Your task to perform on an android device: delete browsing data in the chrome app Image 0: 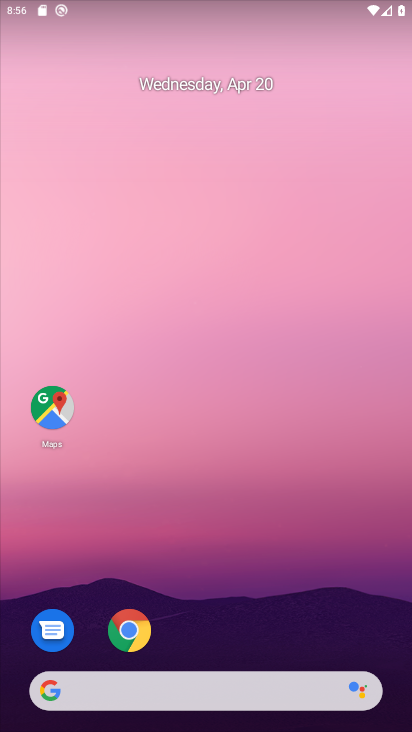
Step 0: drag from (326, 634) to (293, 370)
Your task to perform on an android device: delete browsing data in the chrome app Image 1: 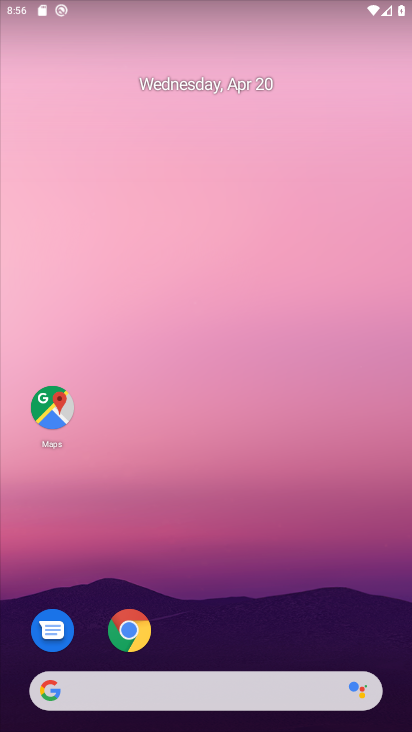
Step 1: drag from (221, 628) to (264, 36)
Your task to perform on an android device: delete browsing data in the chrome app Image 2: 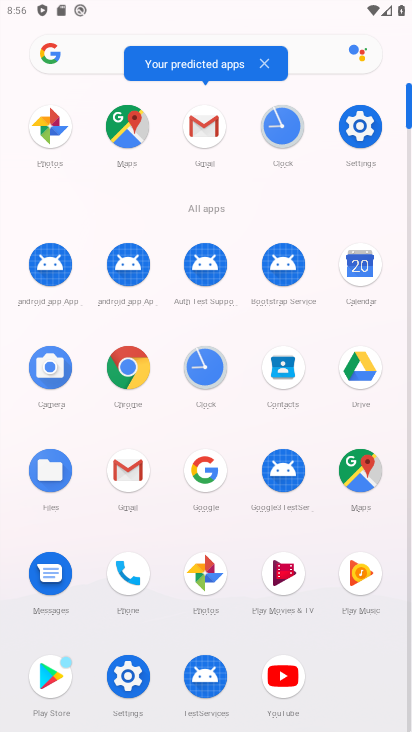
Step 2: click (126, 371)
Your task to perform on an android device: delete browsing data in the chrome app Image 3: 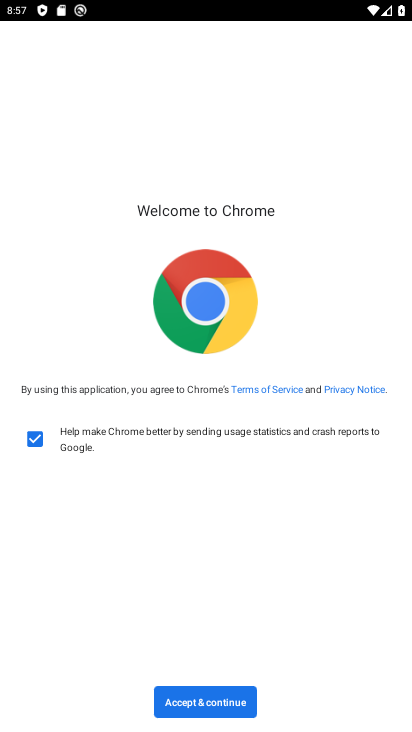
Step 3: click (203, 706)
Your task to perform on an android device: delete browsing data in the chrome app Image 4: 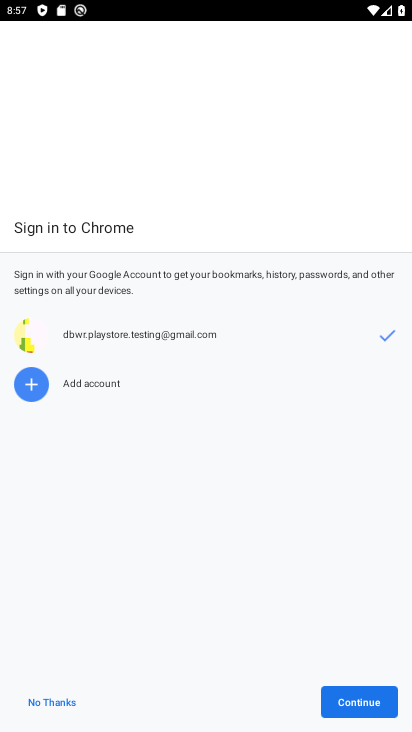
Step 4: click (369, 711)
Your task to perform on an android device: delete browsing data in the chrome app Image 5: 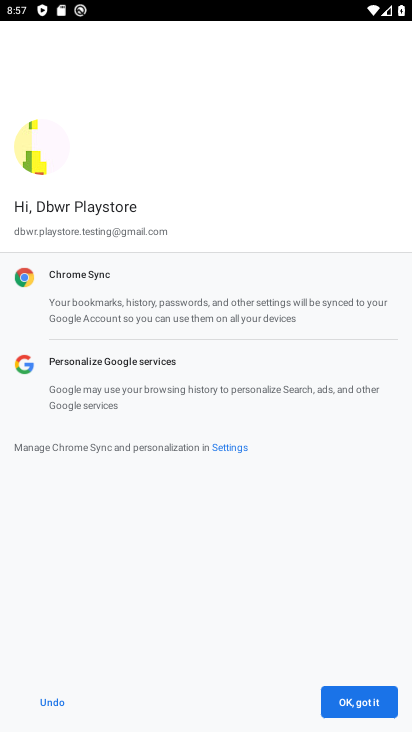
Step 5: click (369, 711)
Your task to perform on an android device: delete browsing data in the chrome app Image 6: 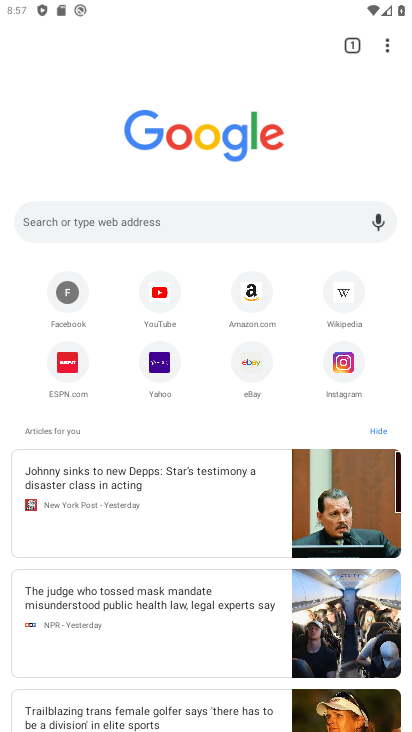
Step 6: click (387, 48)
Your task to perform on an android device: delete browsing data in the chrome app Image 7: 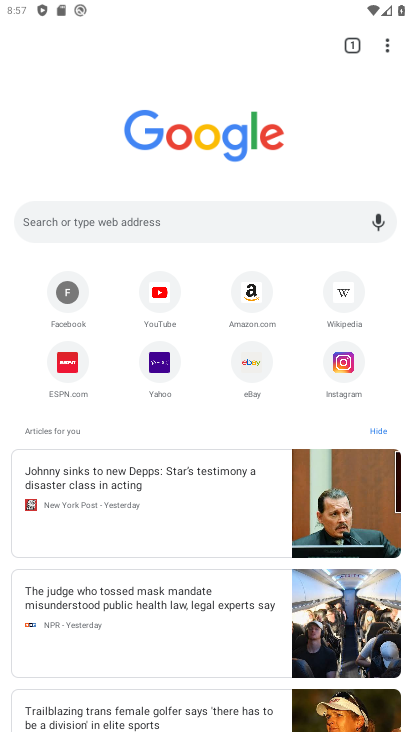
Step 7: drag from (387, 48) to (267, 266)
Your task to perform on an android device: delete browsing data in the chrome app Image 8: 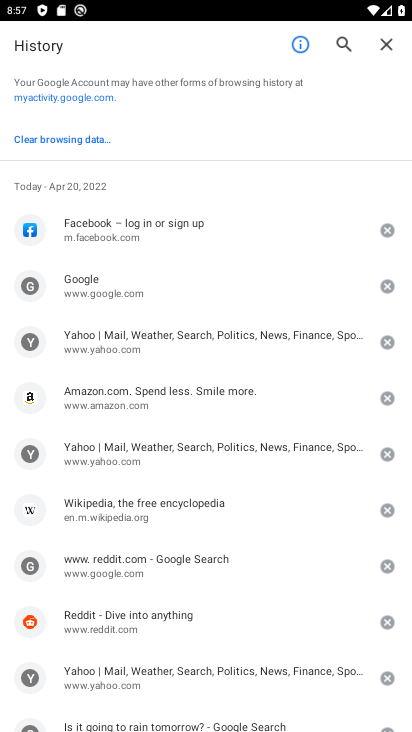
Step 8: click (51, 141)
Your task to perform on an android device: delete browsing data in the chrome app Image 9: 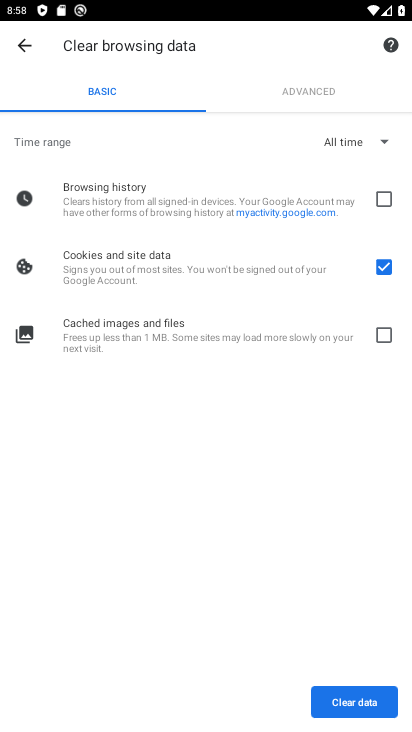
Step 9: click (389, 203)
Your task to perform on an android device: delete browsing data in the chrome app Image 10: 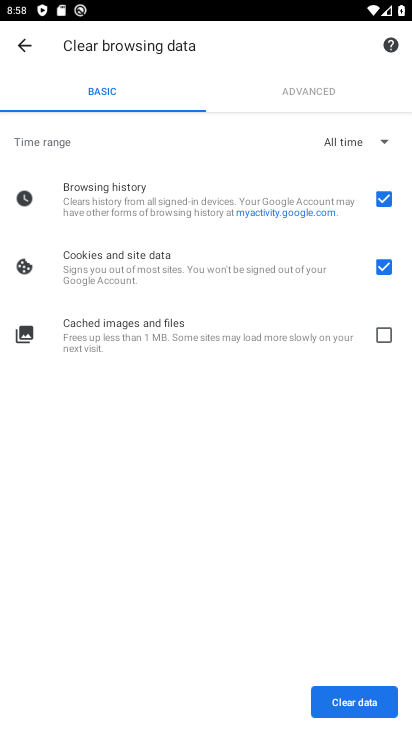
Step 10: click (383, 261)
Your task to perform on an android device: delete browsing data in the chrome app Image 11: 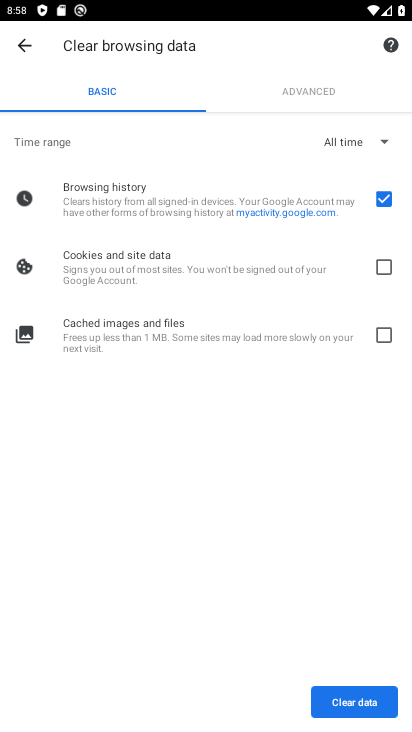
Step 11: click (367, 702)
Your task to perform on an android device: delete browsing data in the chrome app Image 12: 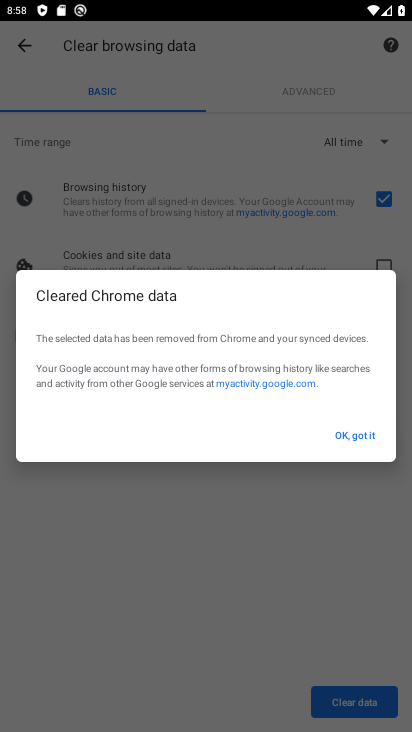
Step 12: click (361, 434)
Your task to perform on an android device: delete browsing data in the chrome app Image 13: 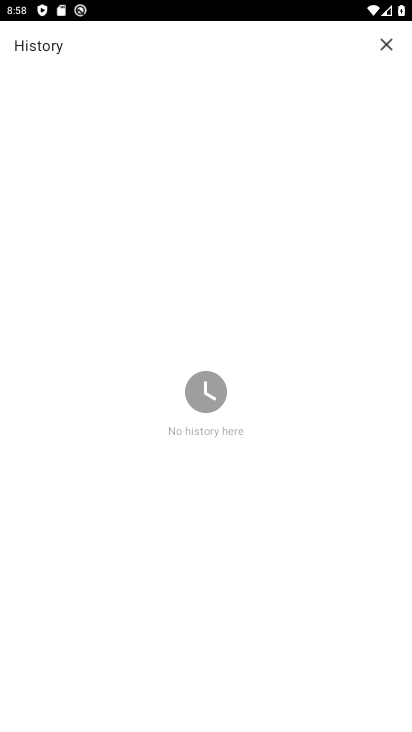
Step 13: task complete